Your task to perform on an android device: Open Google Image 0: 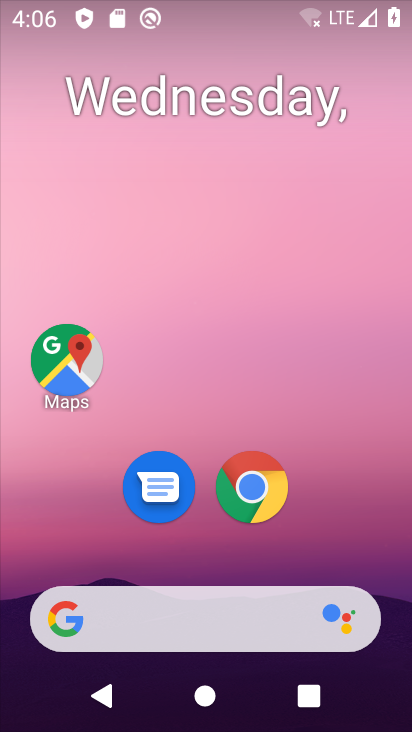
Step 0: press home button
Your task to perform on an android device: Open Google Image 1: 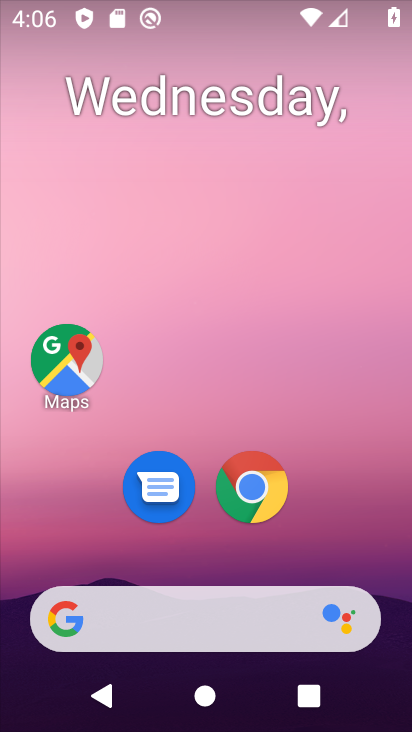
Step 1: click (219, 42)
Your task to perform on an android device: Open Google Image 2: 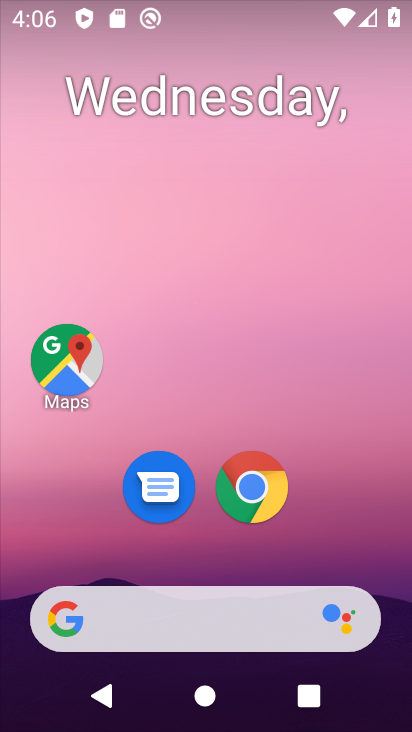
Step 2: drag from (207, 569) to (218, 25)
Your task to perform on an android device: Open Google Image 3: 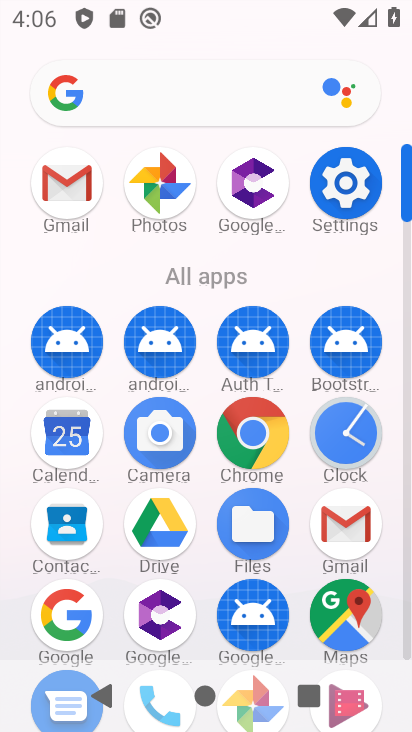
Step 3: click (57, 604)
Your task to perform on an android device: Open Google Image 4: 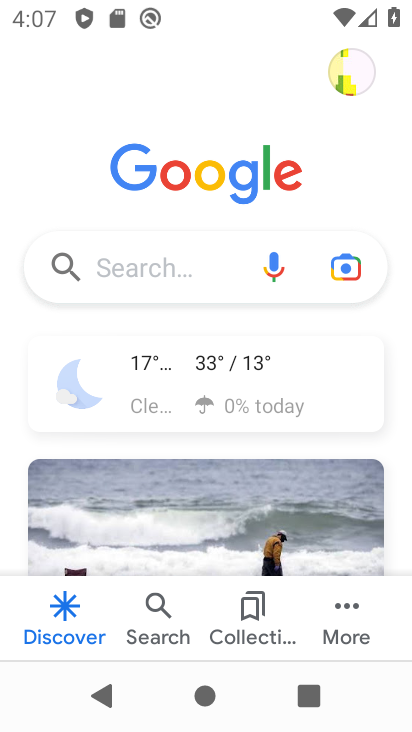
Step 4: task complete